Your task to perform on an android device: toggle airplane mode Image 0: 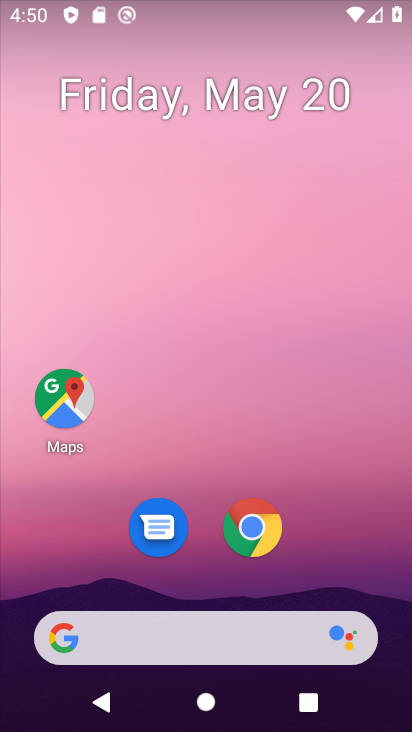
Step 0: drag from (304, 617) to (319, 73)
Your task to perform on an android device: toggle airplane mode Image 1: 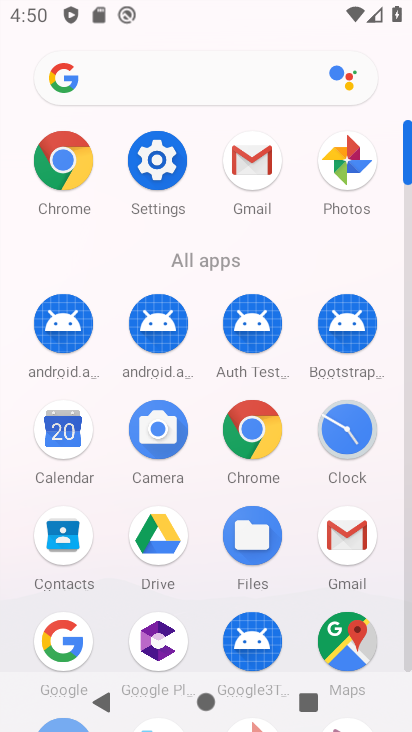
Step 1: click (134, 162)
Your task to perform on an android device: toggle airplane mode Image 2: 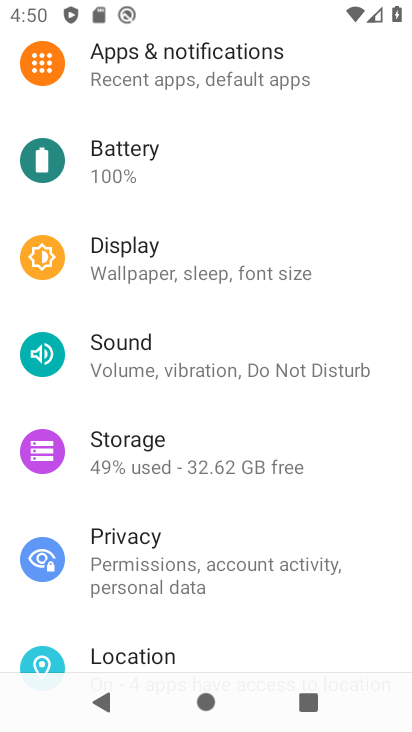
Step 2: drag from (171, 126) to (235, 696)
Your task to perform on an android device: toggle airplane mode Image 3: 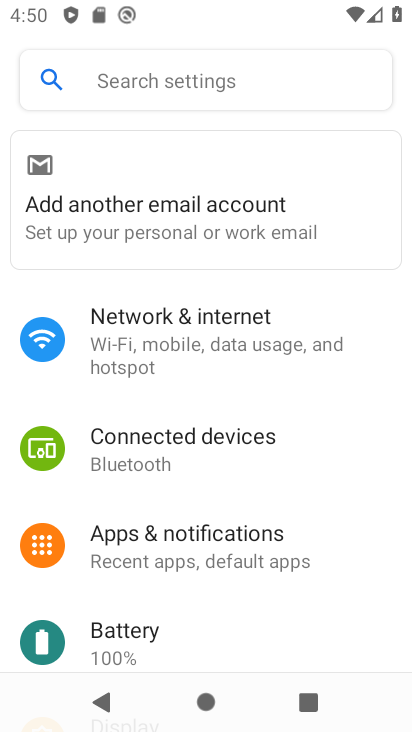
Step 3: click (234, 331)
Your task to perform on an android device: toggle airplane mode Image 4: 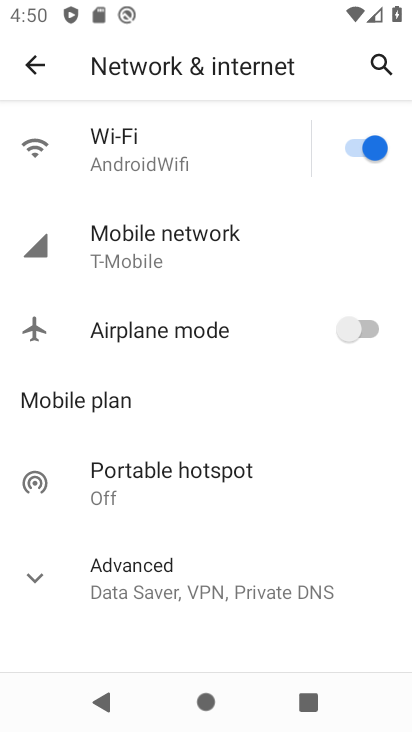
Step 4: click (372, 328)
Your task to perform on an android device: toggle airplane mode Image 5: 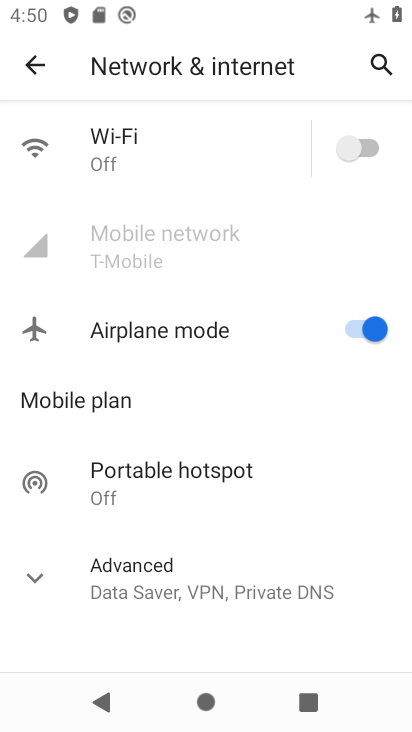
Step 5: task complete